Your task to perform on an android device: change the upload size in google photos Image 0: 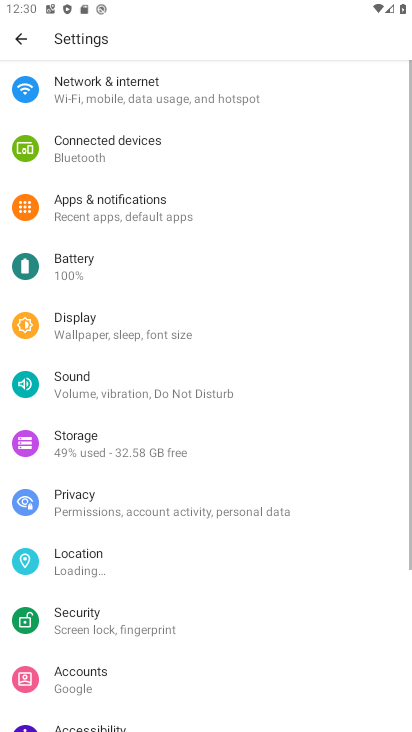
Step 0: press home button
Your task to perform on an android device: change the upload size in google photos Image 1: 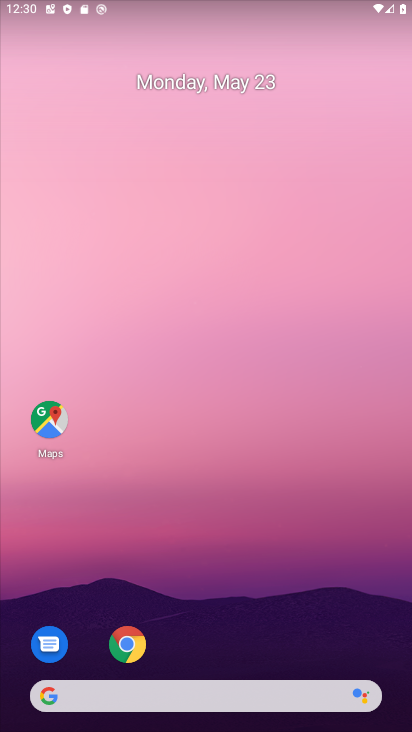
Step 1: drag from (313, 645) to (286, 163)
Your task to perform on an android device: change the upload size in google photos Image 2: 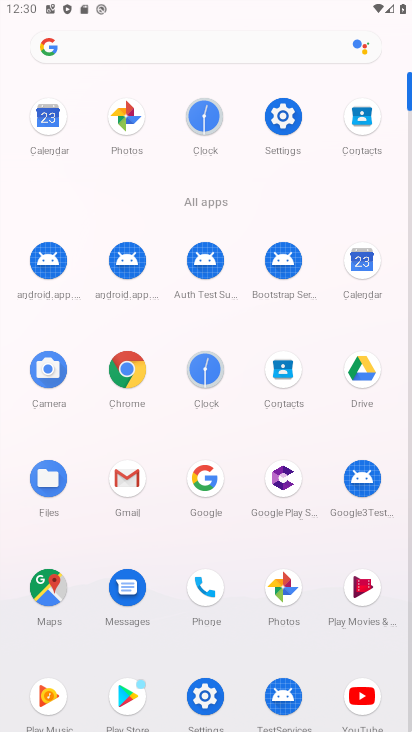
Step 2: click (283, 595)
Your task to perform on an android device: change the upload size in google photos Image 3: 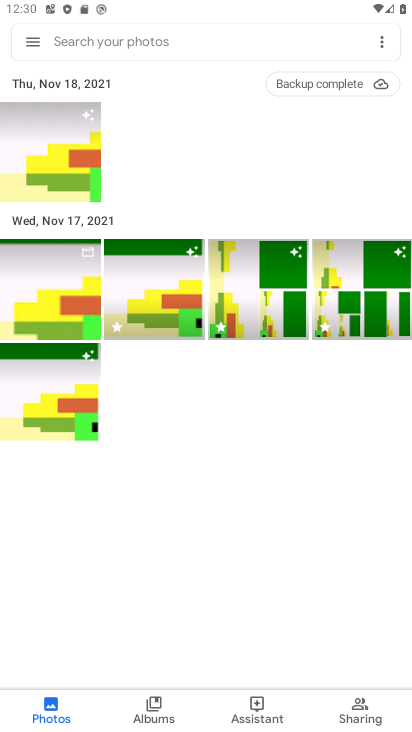
Step 3: click (378, 42)
Your task to perform on an android device: change the upload size in google photos Image 4: 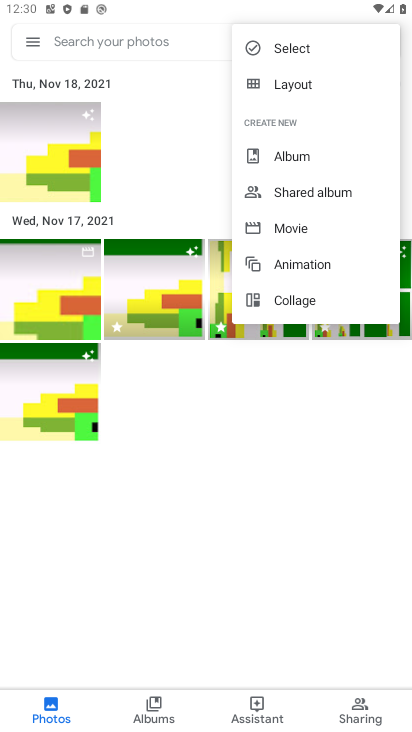
Step 4: click (30, 32)
Your task to perform on an android device: change the upload size in google photos Image 5: 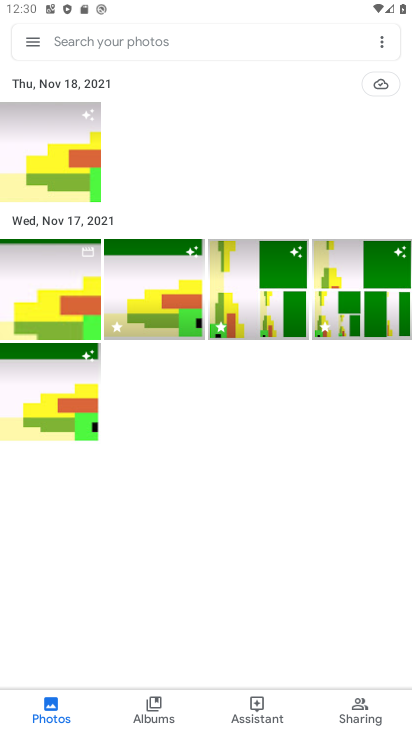
Step 5: click (30, 40)
Your task to perform on an android device: change the upload size in google photos Image 6: 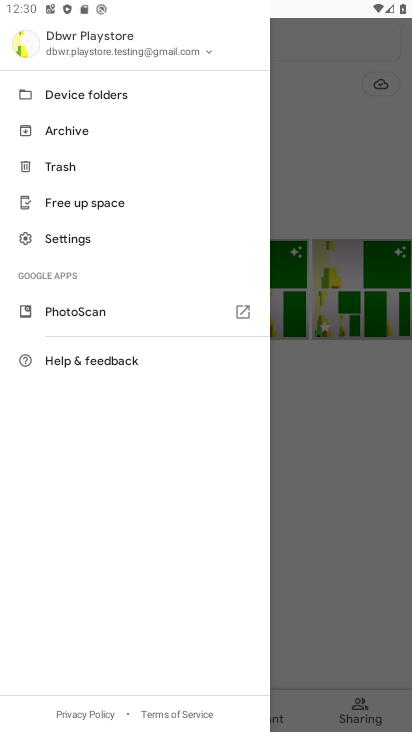
Step 6: click (92, 234)
Your task to perform on an android device: change the upload size in google photos Image 7: 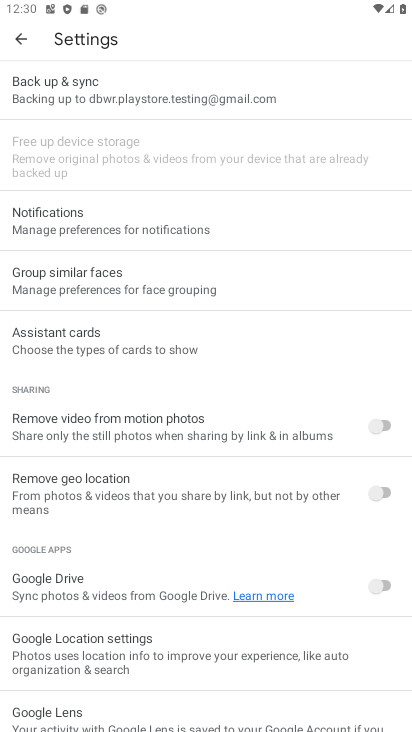
Step 7: click (123, 97)
Your task to perform on an android device: change the upload size in google photos Image 8: 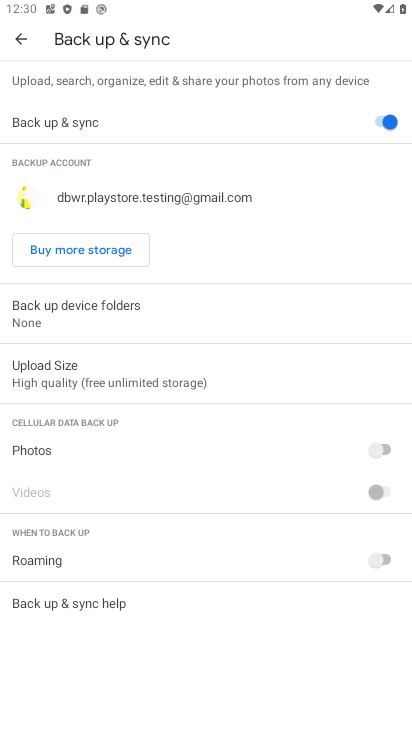
Step 8: click (111, 359)
Your task to perform on an android device: change the upload size in google photos Image 9: 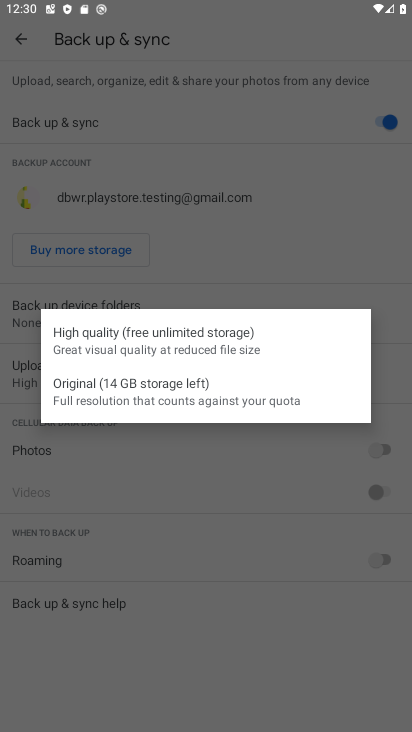
Step 9: click (115, 389)
Your task to perform on an android device: change the upload size in google photos Image 10: 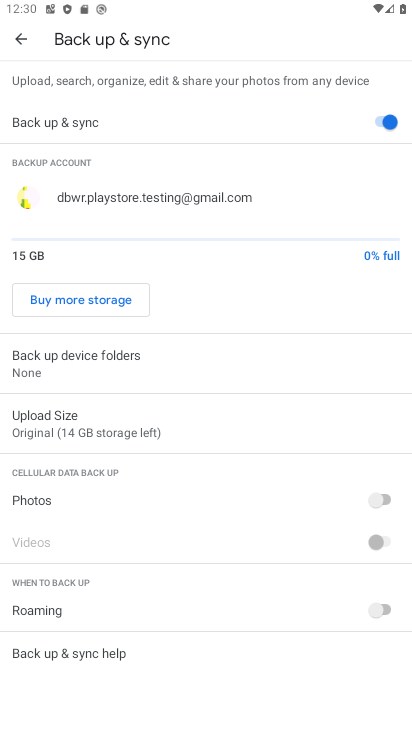
Step 10: task complete